Your task to perform on an android device: turn on notifications settings in the gmail app Image 0: 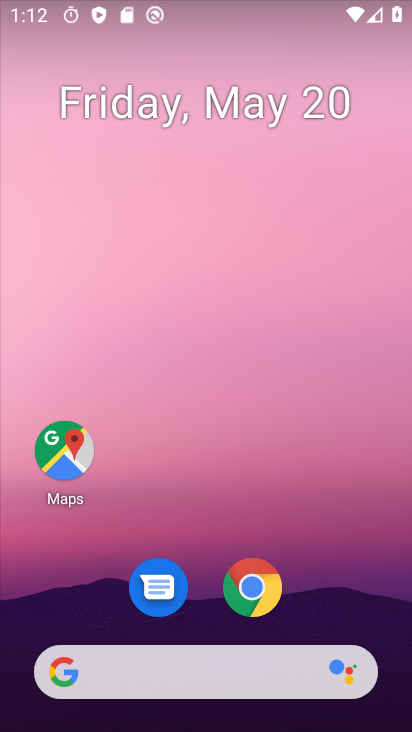
Step 0: drag from (330, 577) to (282, 0)
Your task to perform on an android device: turn on notifications settings in the gmail app Image 1: 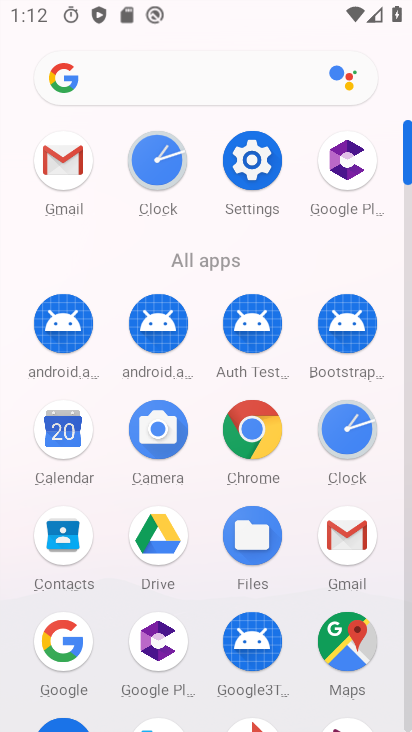
Step 1: click (73, 184)
Your task to perform on an android device: turn on notifications settings in the gmail app Image 2: 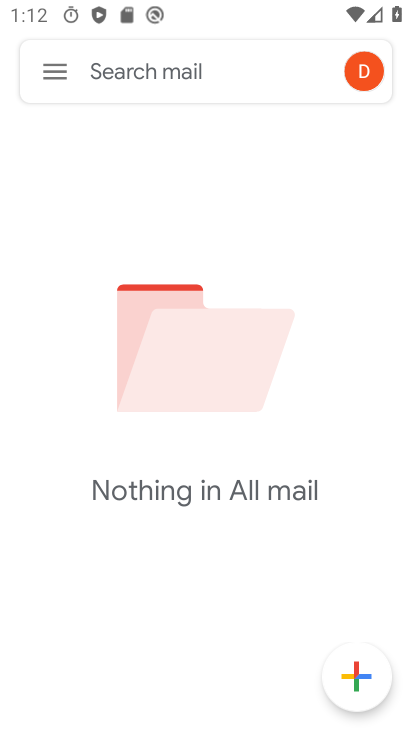
Step 2: click (65, 70)
Your task to perform on an android device: turn on notifications settings in the gmail app Image 3: 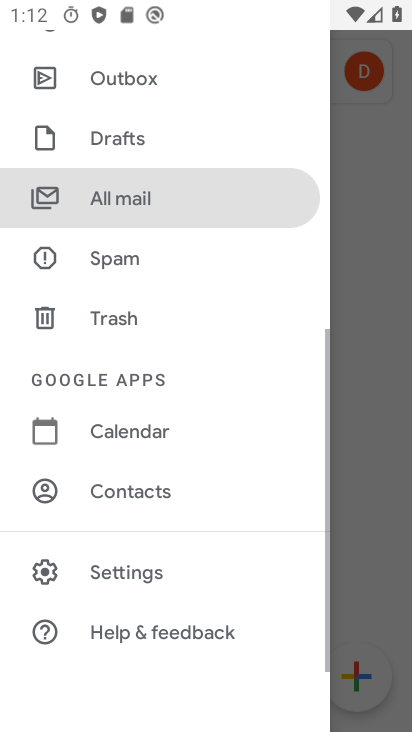
Step 3: drag from (180, 618) to (239, 313)
Your task to perform on an android device: turn on notifications settings in the gmail app Image 4: 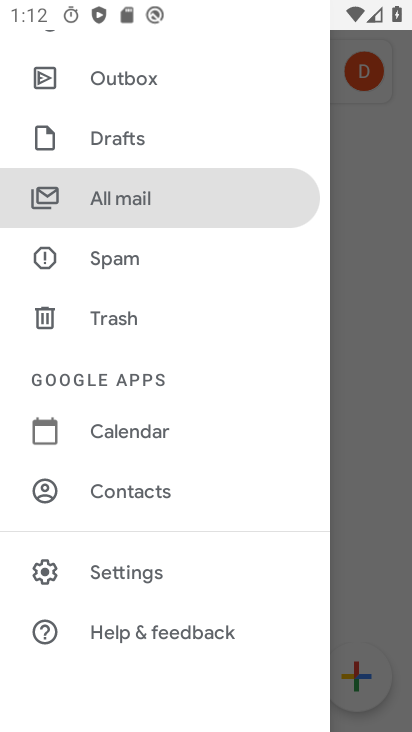
Step 4: click (138, 585)
Your task to perform on an android device: turn on notifications settings in the gmail app Image 5: 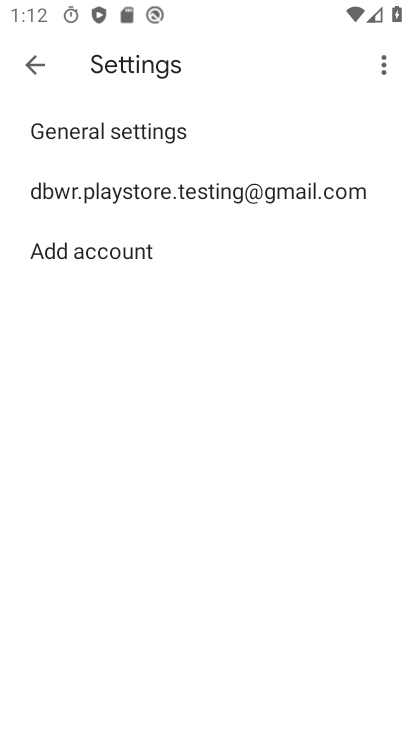
Step 5: click (163, 182)
Your task to perform on an android device: turn on notifications settings in the gmail app Image 6: 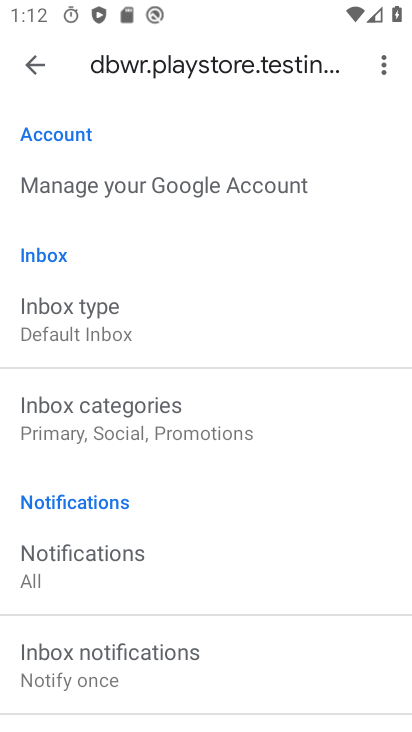
Step 6: drag from (159, 577) to (225, 205)
Your task to perform on an android device: turn on notifications settings in the gmail app Image 7: 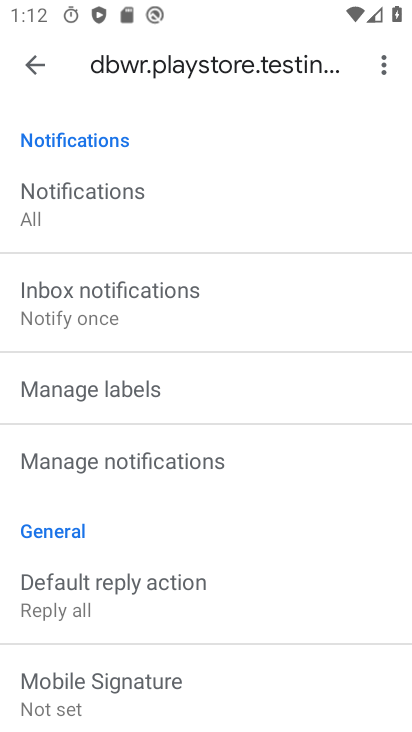
Step 7: click (143, 458)
Your task to perform on an android device: turn on notifications settings in the gmail app Image 8: 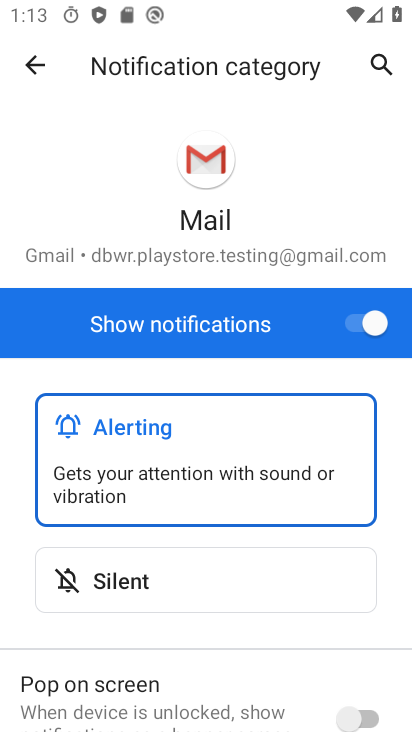
Step 8: task complete